Your task to perform on an android device: open a new tab in the chrome app Image 0: 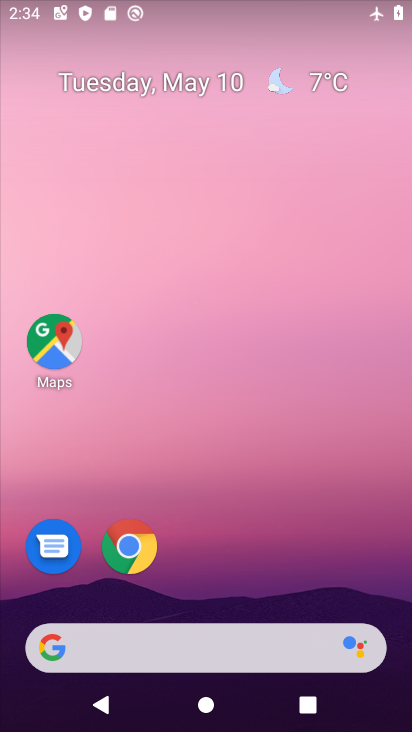
Step 0: drag from (264, 541) to (186, 159)
Your task to perform on an android device: open a new tab in the chrome app Image 1: 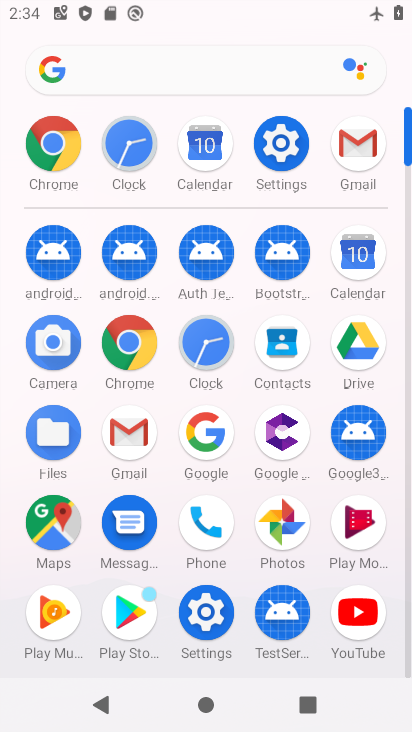
Step 1: click (44, 167)
Your task to perform on an android device: open a new tab in the chrome app Image 2: 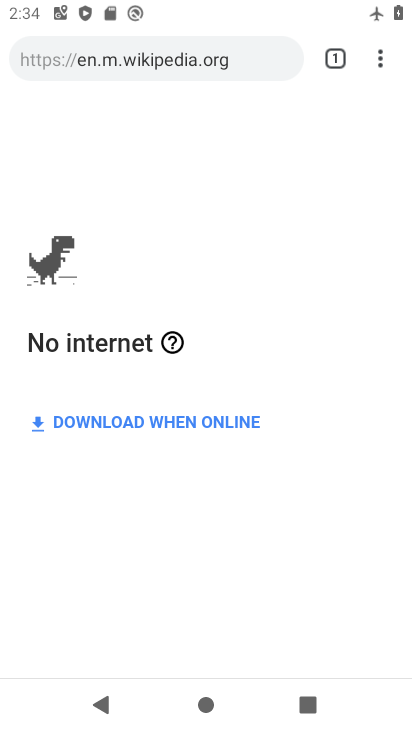
Step 2: task complete